Your task to perform on an android device: Go to Android settings Image 0: 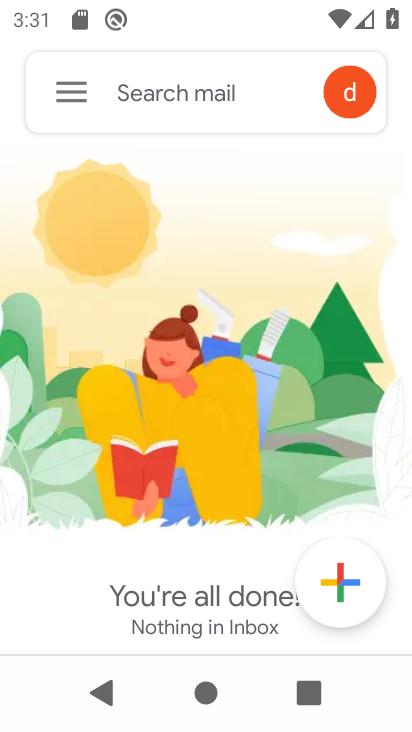
Step 0: press home button
Your task to perform on an android device: Go to Android settings Image 1: 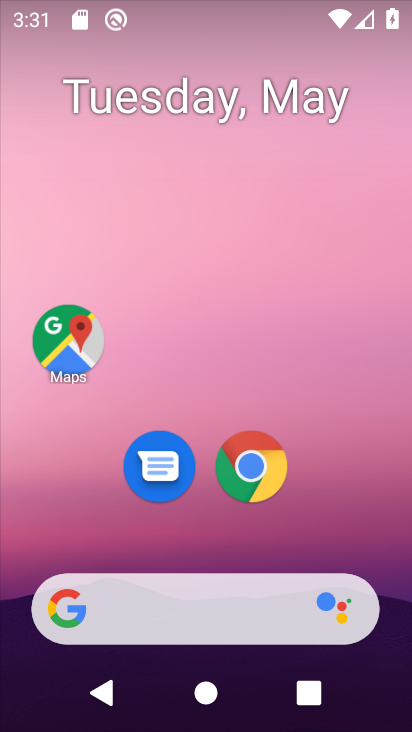
Step 1: drag from (208, 522) to (243, 104)
Your task to perform on an android device: Go to Android settings Image 2: 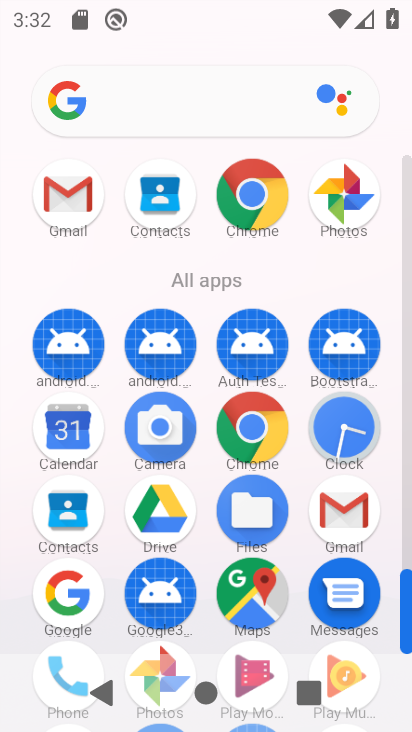
Step 2: drag from (208, 285) to (220, 58)
Your task to perform on an android device: Go to Android settings Image 3: 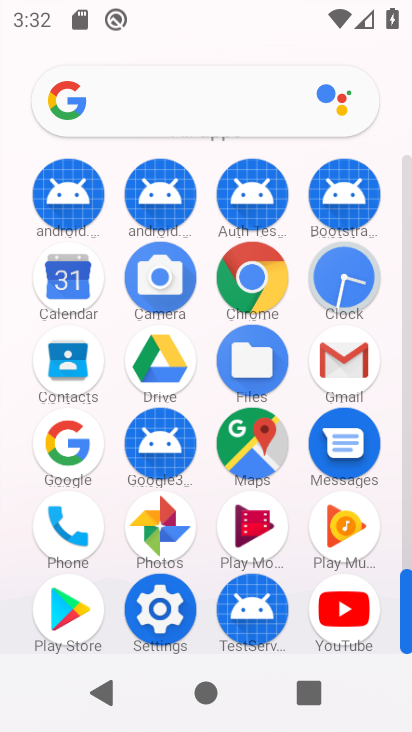
Step 3: click (160, 615)
Your task to perform on an android device: Go to Android settings Image 4: 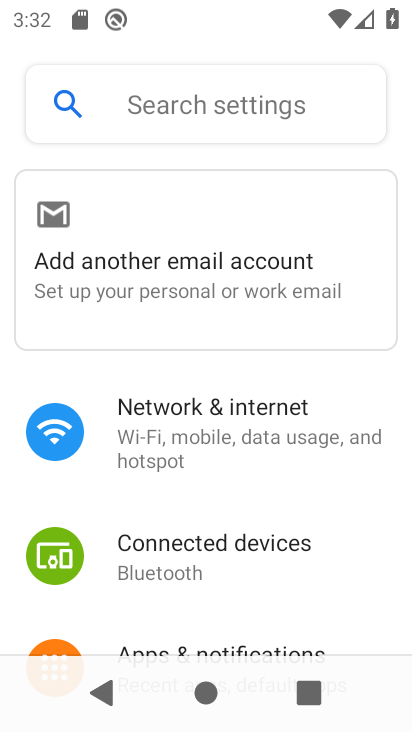
Step 4: drag from (201, 568) to (230, 183)
Your task to perform on an android device: Go to Android settings Image 5: 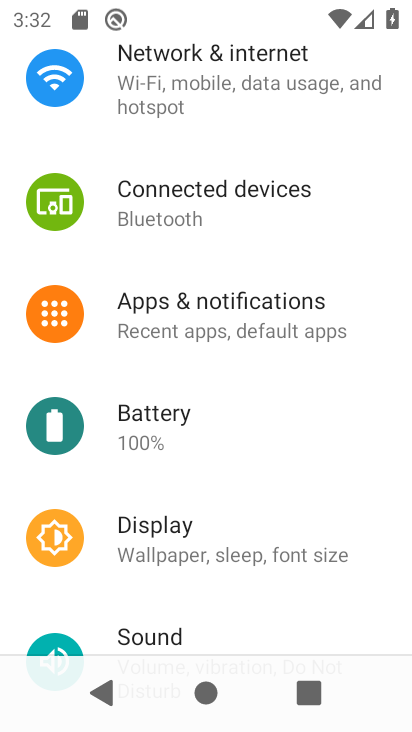
Step 5: drag from (224, 562) to (227, 213)
Your task to perform on an android device: Go to Android settings Image 6: 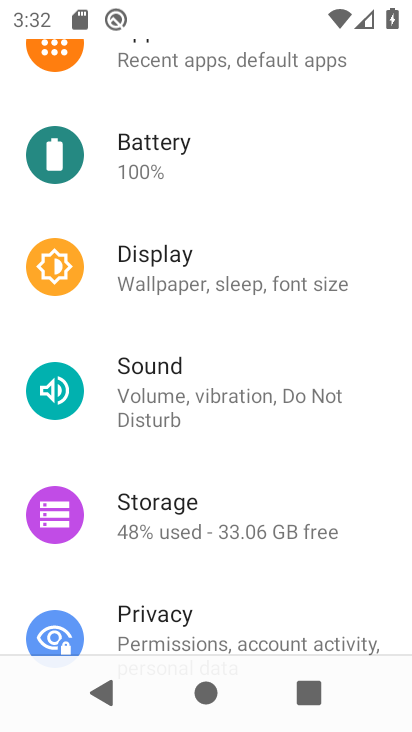
Step 6: drag from (252, 572) to (251, 159)
Your task to perform on an android device: Go to Android settings Image 7: 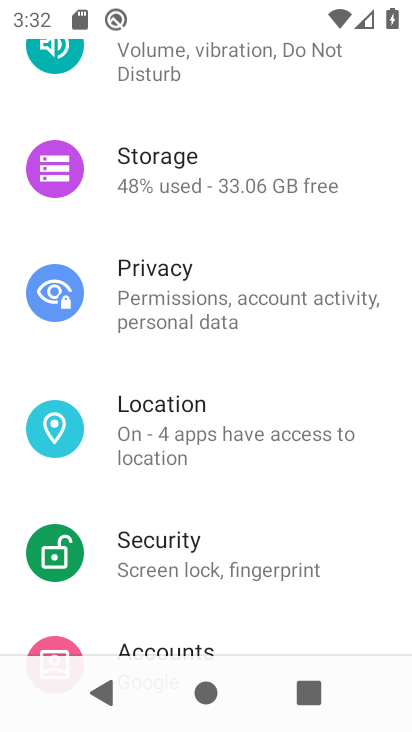
Step 7: drag from (225, 587) to (227, 332)
Your task to perform on an android device: Go to Android settings Image 8: 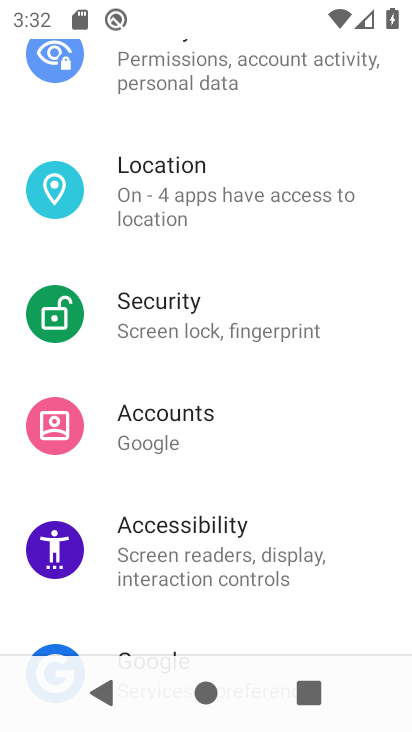
Step 8: drag from (232, 562) to (241, 187)
Your task to perform on an android device: Go to Android settings Image 9: 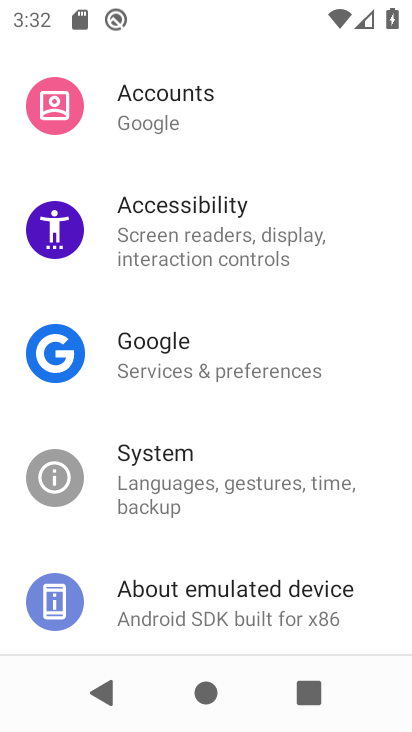
Step 9: drag from (281, 555) to (279, 251)
Your task to perform on an android device: Go to Android settings Image 10: 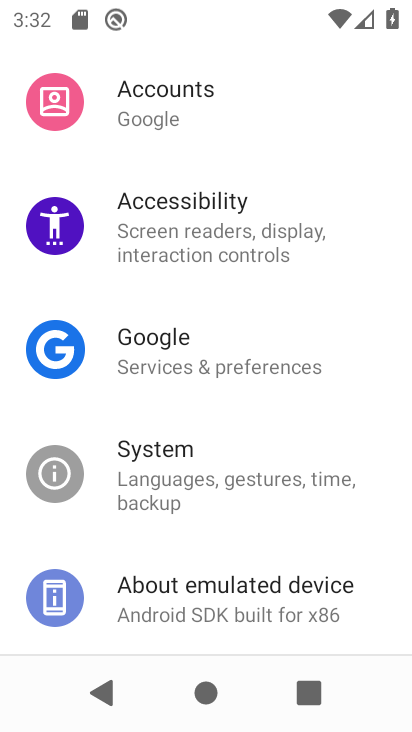
Step 10: click (219, 597)
Your task to perform on an android device: Go to Android settings Image 11: 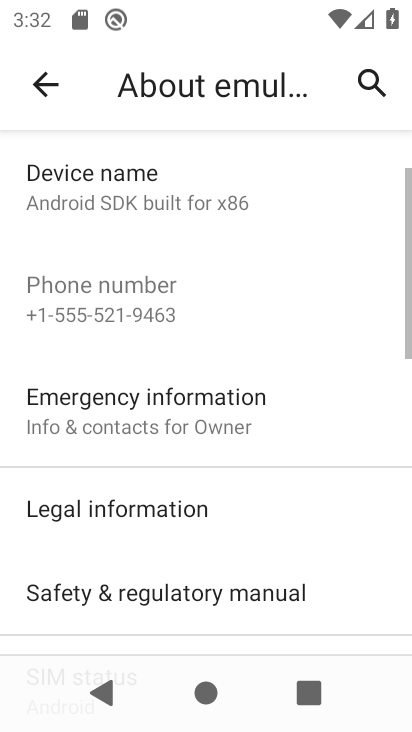
Step 11: drag from (221, 535) to (228, 289)
Your task to perform on an android device: Go to Android settings Image 12: 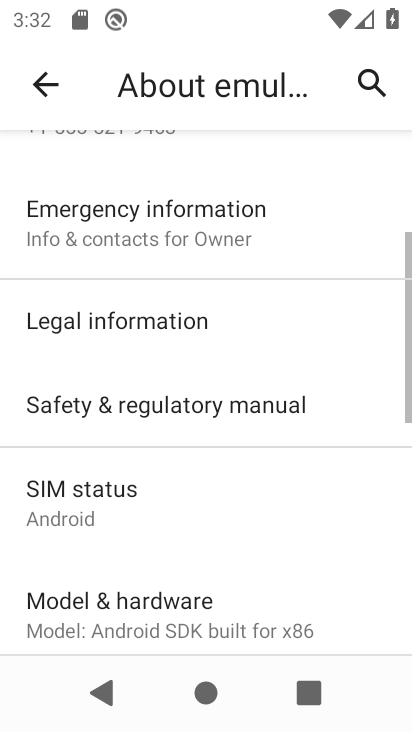
Step 12: drag from (190, 521) to (197, 279)
Your task to perform on an android device: Go to Android settings Image 13: 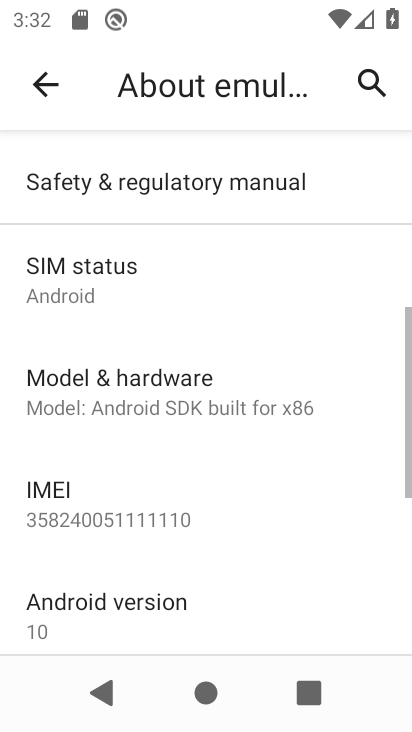
Step 13: drag from (181, 585) to (191, 415)
Your task to perform on an android device: Go to Android settings Image 14: 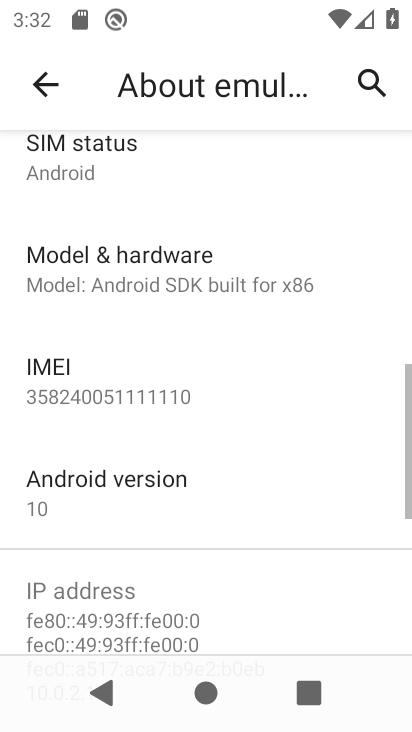
Step 14: click (144, 475)
Your task to perform on an android device: Go to Android settings Image 15: 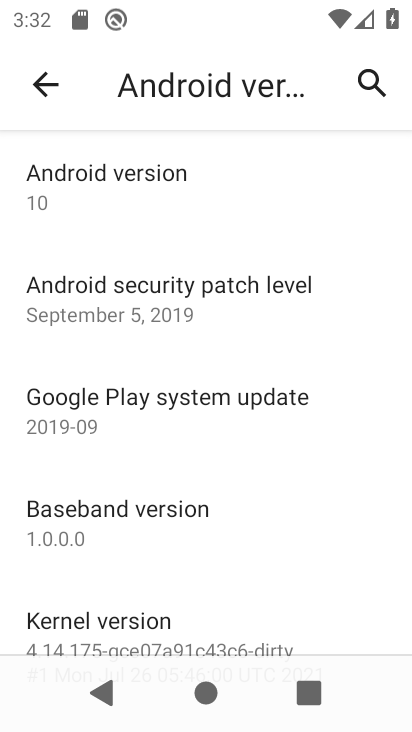
Step 15: click (158, 173)
Your task to perform on an android device: Go to Android settings Image 16: 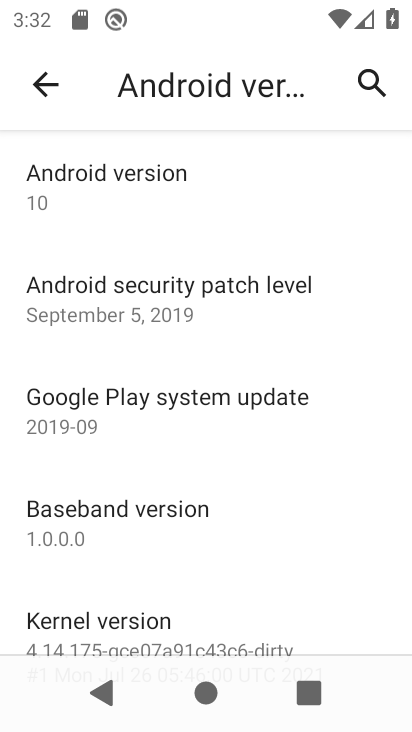
Step 16: task complete